Your task to perform on an android device: delete the emails in spam in the gmail app Image 0: 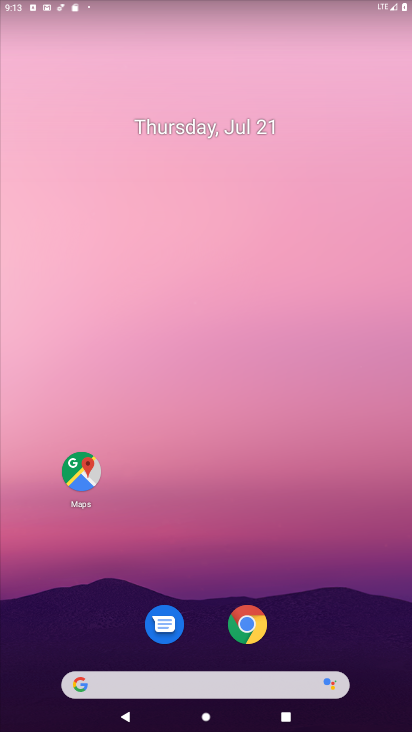
Step 0: drag from (47, 542) to (236, 78)
Your task to perform on an android device: delete the emails in spam in the gmail app Image 1: 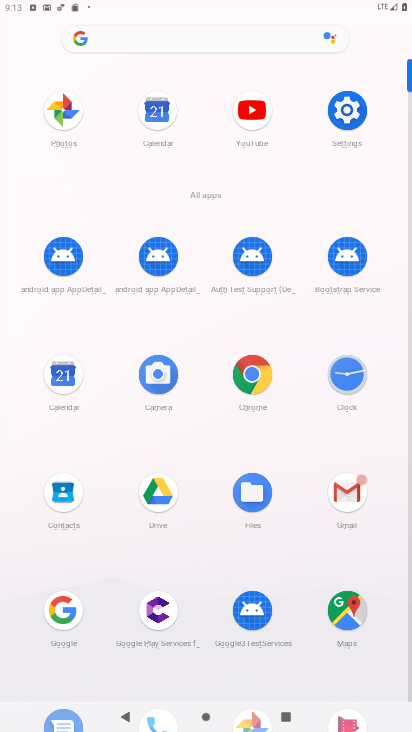
Step 1: click (349, 502)
Your task to perform on an android device: delete the emails in spam in the gmail app Image 2: 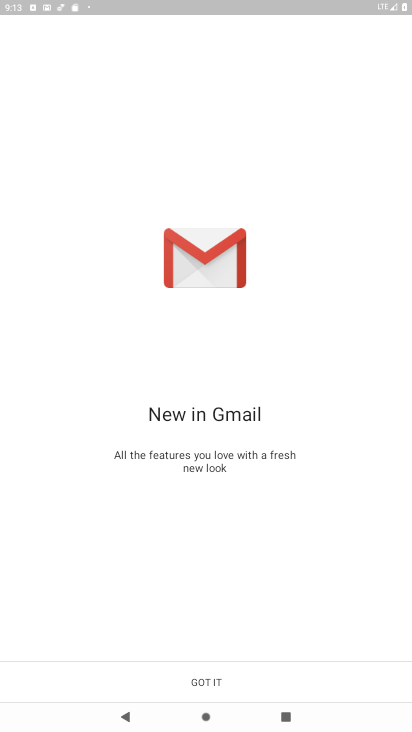
Step 2: click (213, 678)
Your task to perform on an android device: delete the emails in spam in the gmail app Image 3: 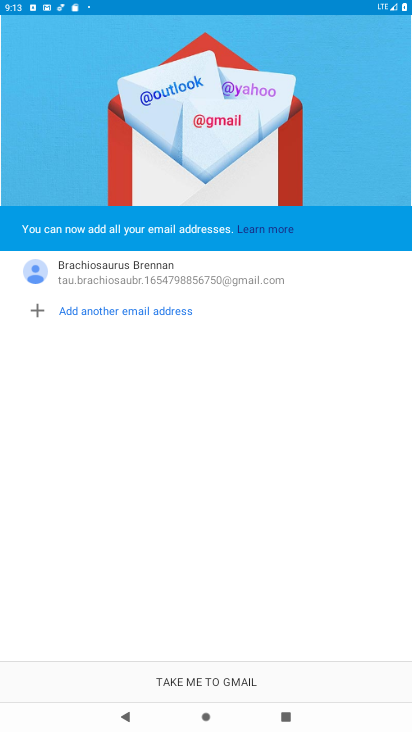
Step 3: click (207, 690)
Your task to perform on an android device: delete the emails in spam in the gmail app Image 4: 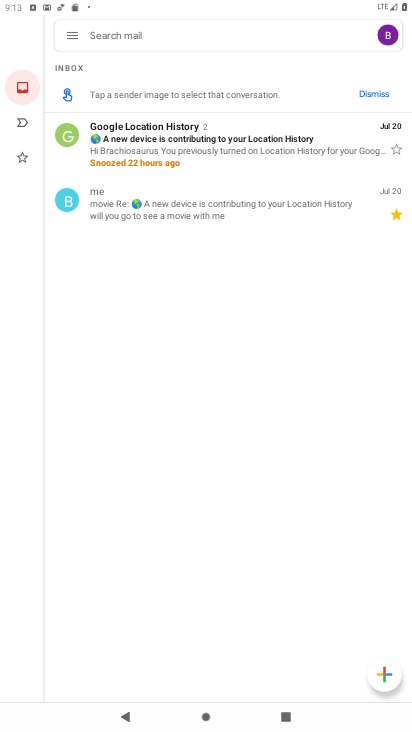
Step 4: click (67, 38)
Your task to perform on an android device: delete the emails in spam in the gmail app Image 5: 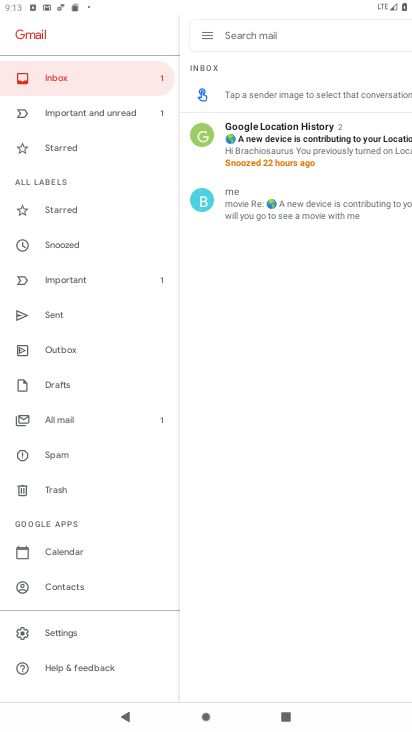
Step 5: click (96, 425)
Your task to perform on an android device: delete the emails in spam in the gmail app Image 6: 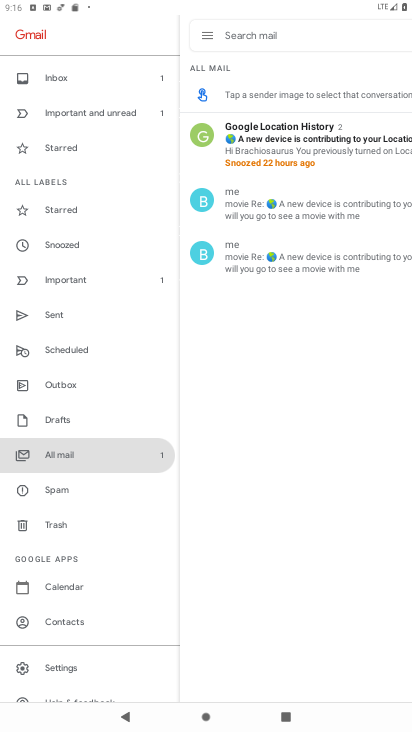
Step 6: task complete